Your task to perform on an android device: toggle priority inbox in the gmail app Image 0: 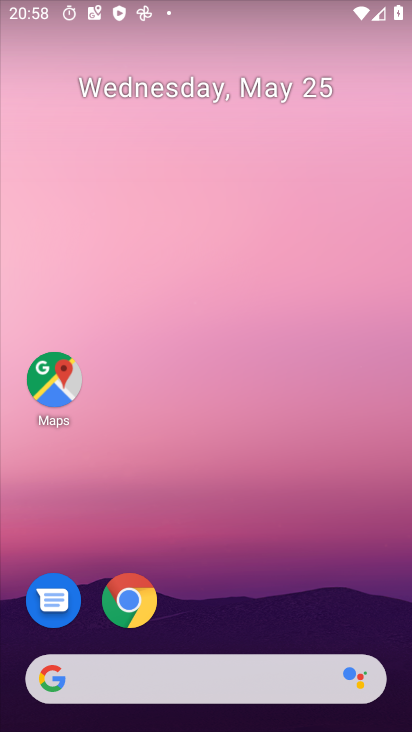
Step 0: drag from (377, 592) to (331, 149)
Your task to perform on an android device: toggle priority inbox in the gmail app Image 1: 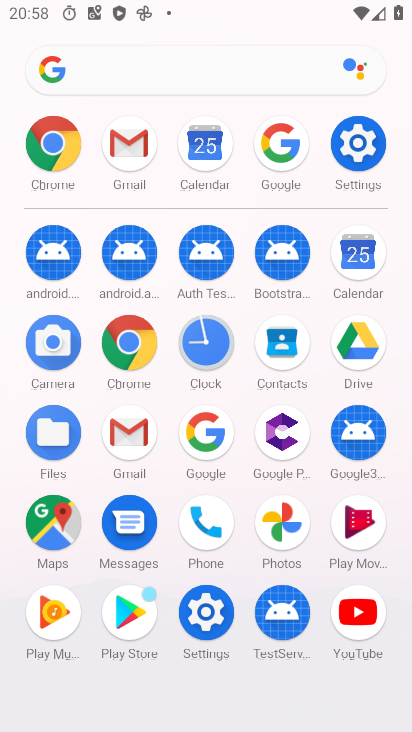
Step 1: click (134, 442)
Your task to perform on an android device: toggle priority inbox in the gmail app Image 2: 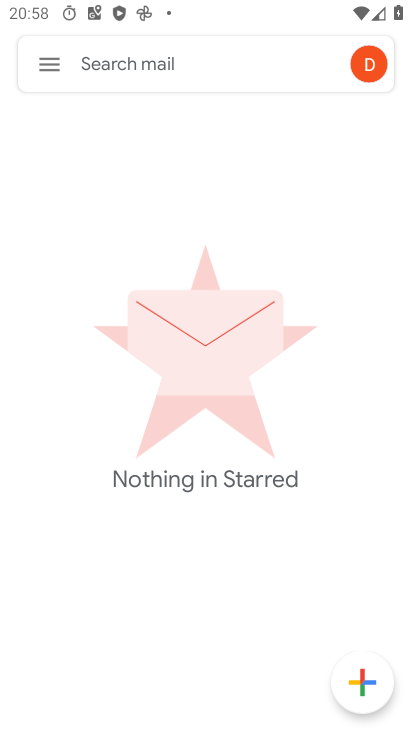
Step 2: click (45, 72)
Your task to perform on an android device: toggle priority inbox in the gmail app Image 3: 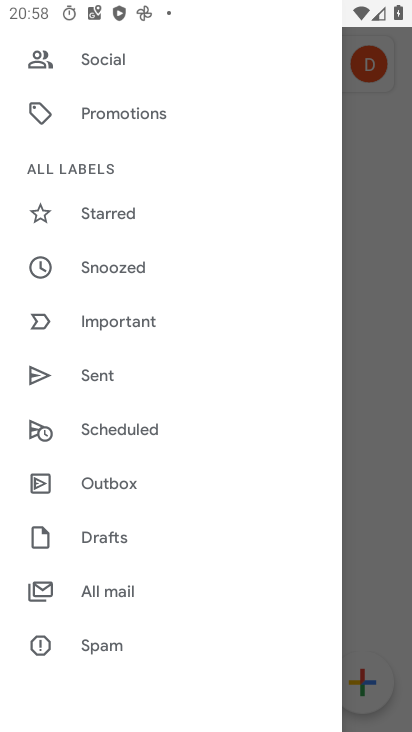
Step 3: drag from (181, 227) to (166, 569)
Your task to perform on an android device: toggle priority inbox in the gmail app Image 4: 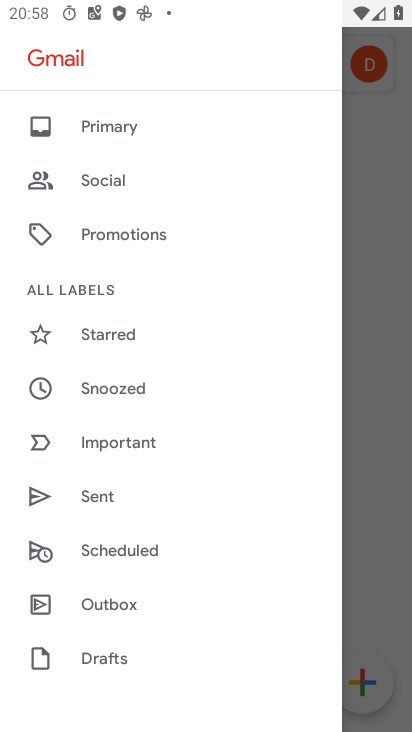
Step 4: drag from (167, 553) to (180, 170)
Your task to perform on an android device: toggle priority inbox in the gmail app Image 5: 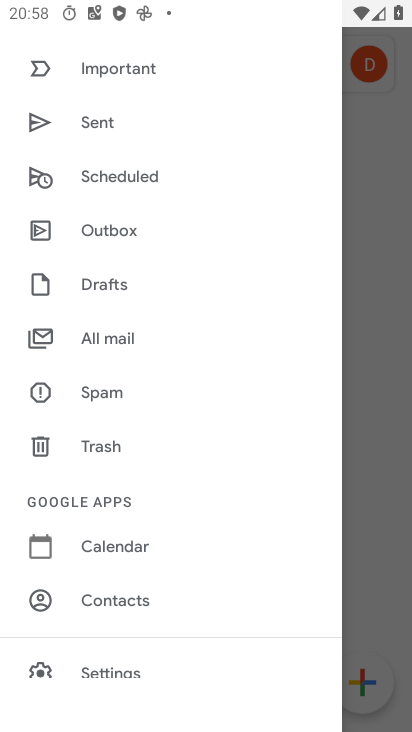
Step 5: click (96, 668)
Your task to perform on an android device: toggle priority inbox in the gmail app Image 6: 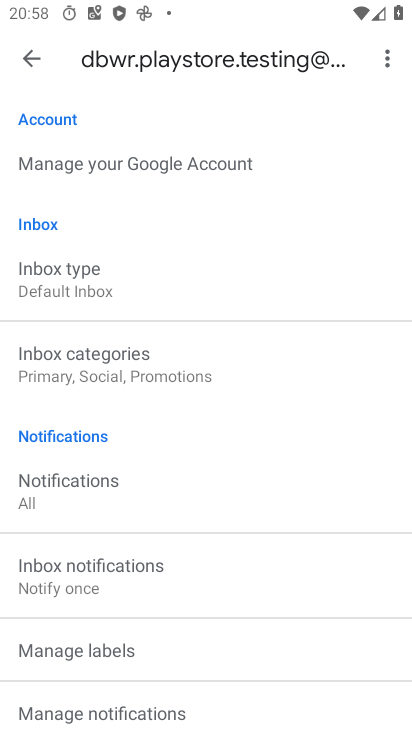
Step 6: click (133, 292)
Your task to perform on an android device: toggle priority inbox in the gmail app Image 7: 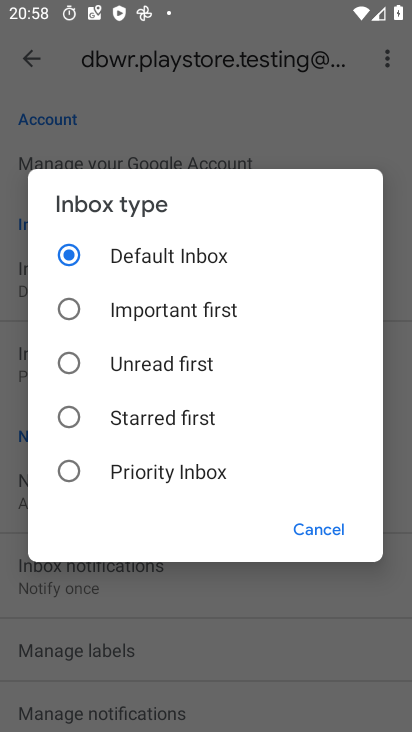
Step 7: click (145, 474)
Your task to perform on an android device: toggle priority inbox in the gmail app Image 8: 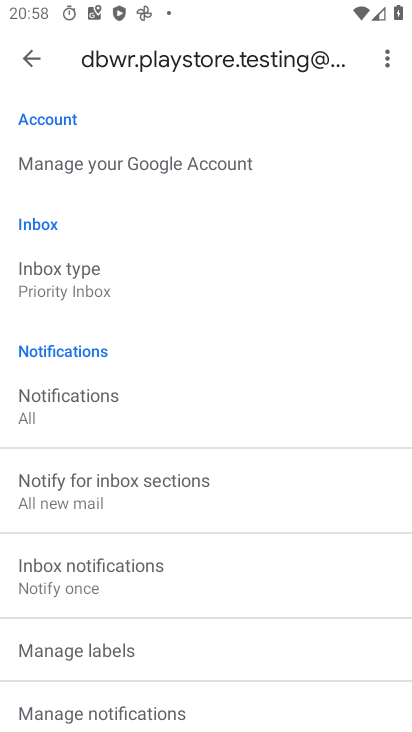
Step 8: task complete